Your task to perform on an android device: Open Android settings Image 0: 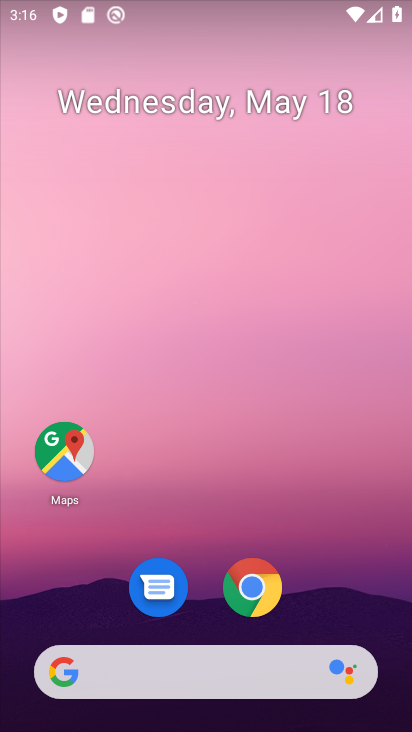
Step 0: drag from (332, 595) to (302, 141)
Your task to perform on an android device: Open Android settings Image 1: 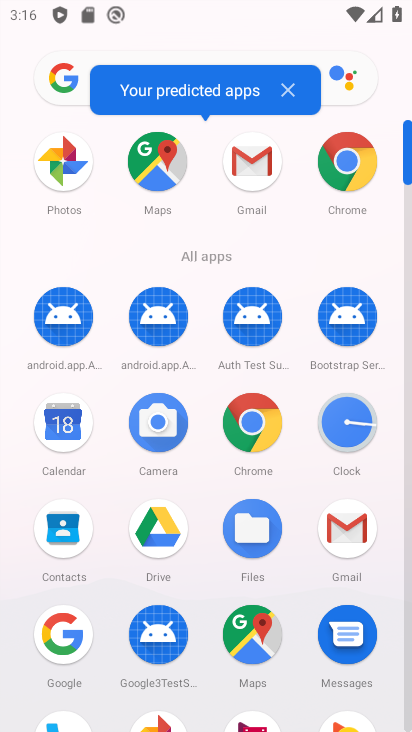
Step 1: drag from (307, 522) to (358, 127)
Your task to perform on an android device: Open Android settings Image 2: 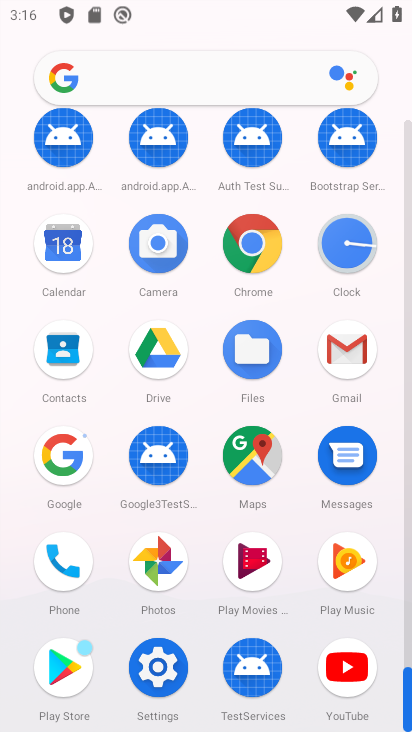
Step 2: click (164, 655)
Your task to perform on an android device: Open Android settings Image 3: 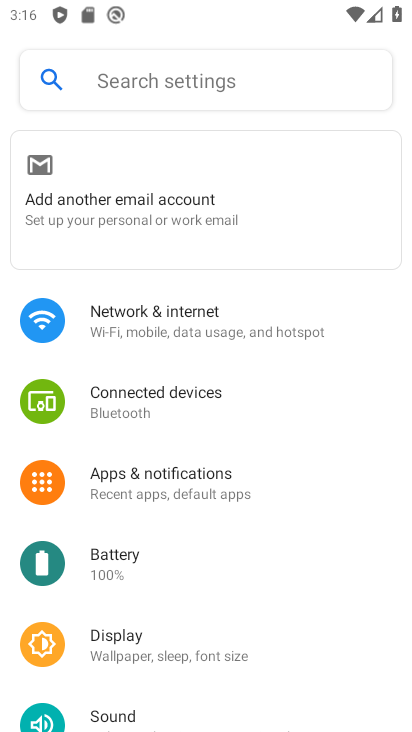
Step 3: task complete